Your task to perform on an android device: When is my next appointment? Image 0: 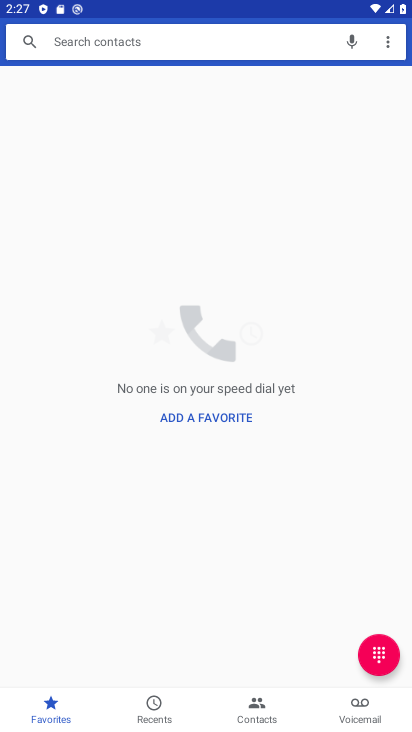
Step 0: press home button
Your task to perform on an android device: When is my next appointment? Image 1: 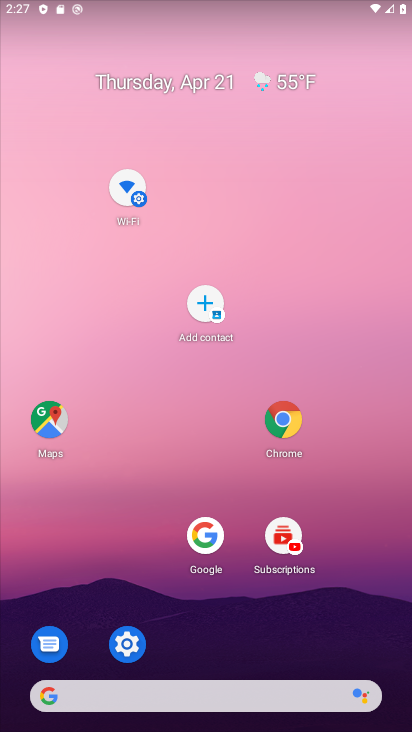
Step 1: drag from (359, 631) to (193, 192)
Your task to perform on an android device: When is my next appointment? Image 2: 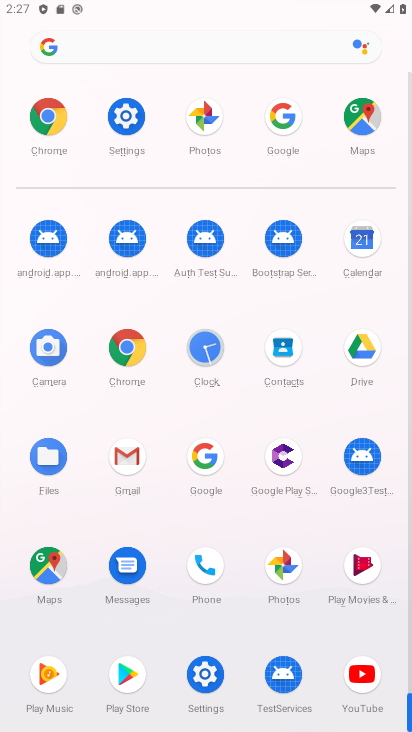
Step 2: click (119, 117)
Your task to perform on an android device: When is my next appointment? Image 3: 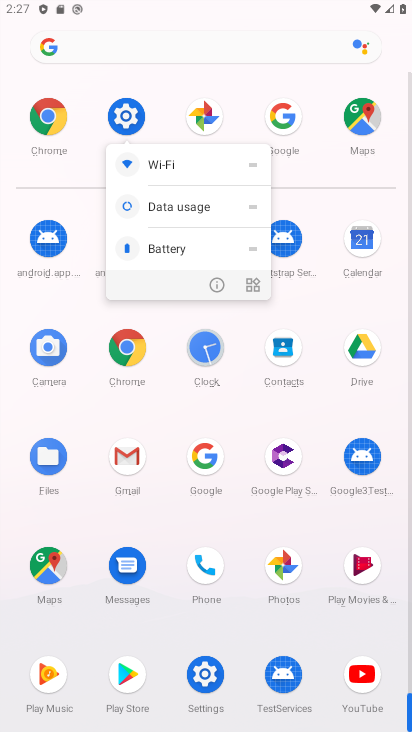
Step 3: click (117, 115)
Your task to perform on an android device: When is my next appointment? Image 4: 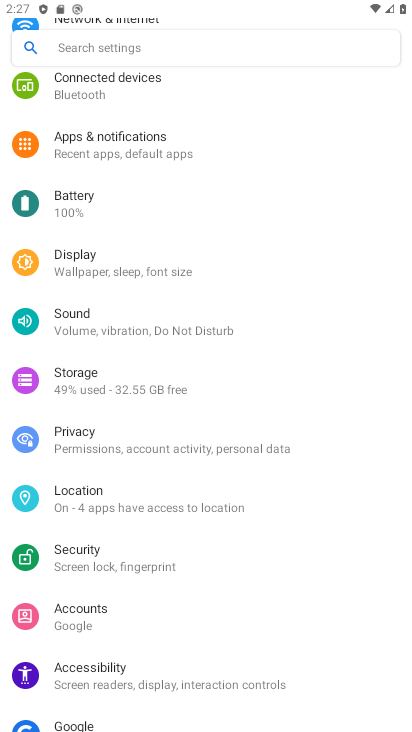
Step 4: press home button
Your task to perform on an android device: When is my next appointment? Image 5: 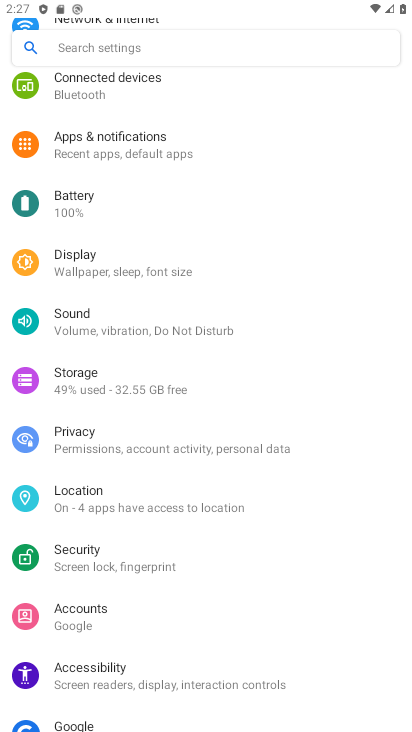
Step 5: press home button
Your task to perform on an android device: When is my next appointment? Image 6: 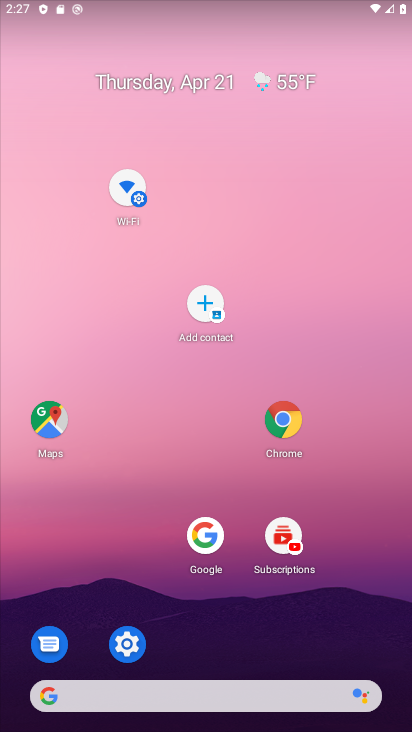
Step 6: drag from (244, 497) to (156, 170)
Your task to perform on an android device: When is my next appointment? Image 7: 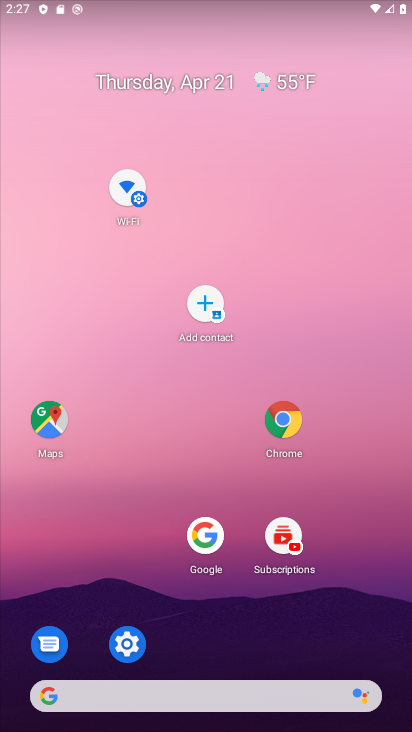
Step 7: drag from (239, 488) to (162, 241)
Your task to perform on an android device: When is my next appointment? Image 8: 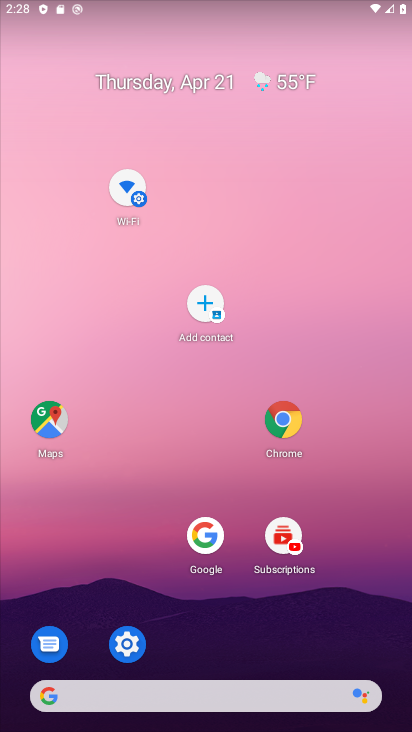
Step 8: drag from (289, 423) to (242, 295)
Your task to perform on an android device: When is my next appointment? Image 9: 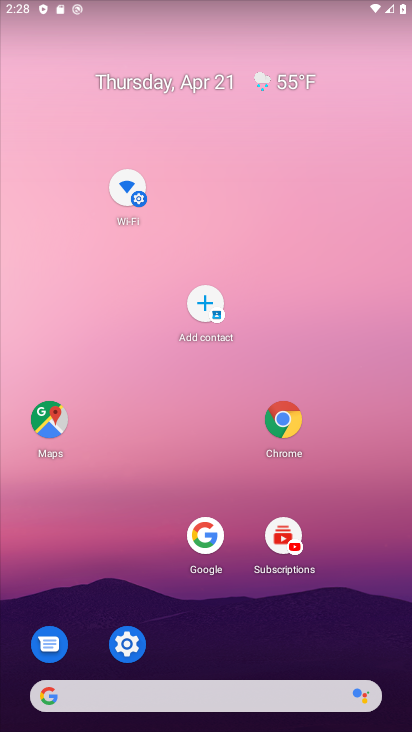
Step 9: drag from (218, 276) to (201, 175)
Your task to perform on an android device: When is my next appointment? Image 10: 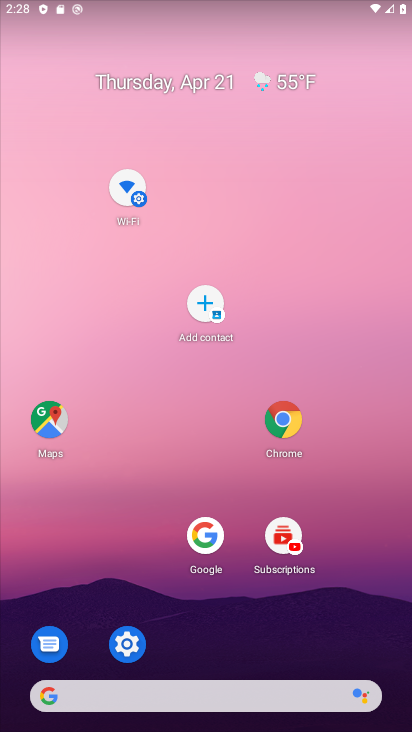
Step 10: drag from (286, 344) to (241, 226)
Your task to perform on an android device: When is my next appointment? Image 11: 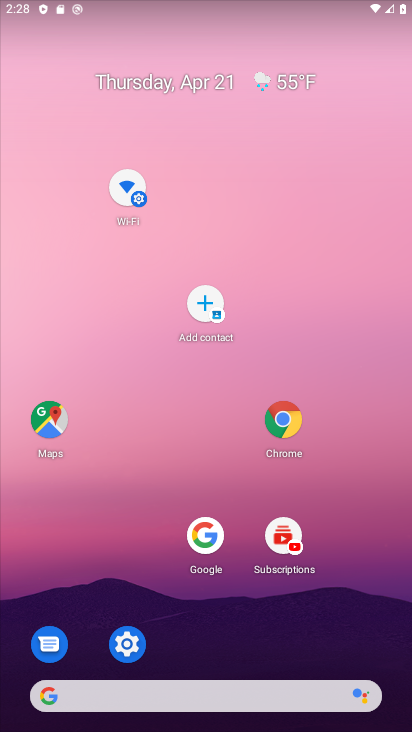
Step 11: drag from (269, 235) to (218, 46)
Your task to perform on an android device: When is my next appointment? Image 12: 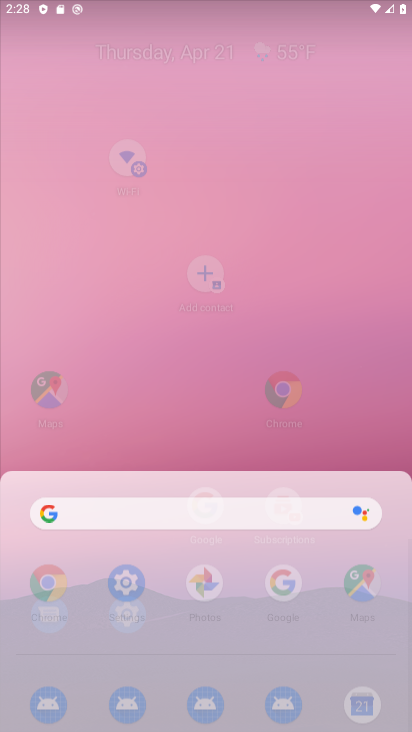
Step 12: drag from (250, 496) to (101, 22)
Your task to perform on an android device: When is my next appointment? Image 13: 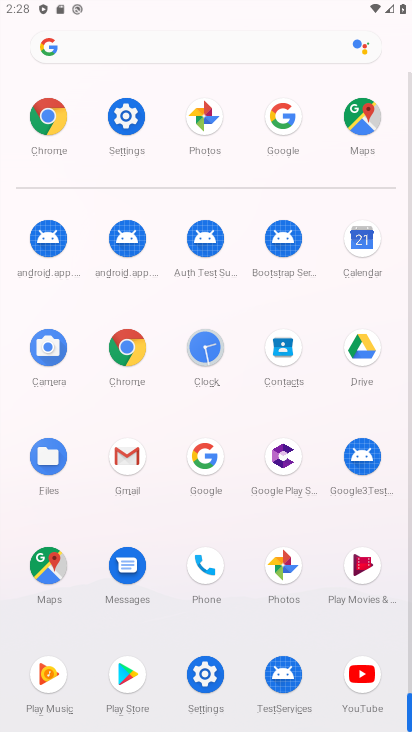
Step 13: click (357, 252)
Your task to perform on an android device: When is my next appointment? Image 14: 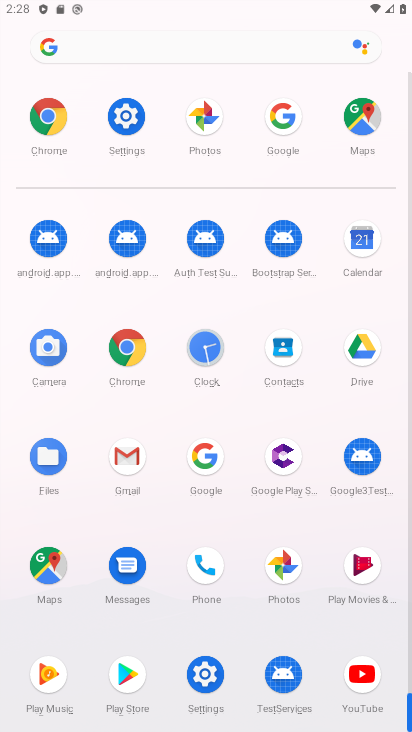
Step 14: click (357, 252)
Your task to perform on an android device: When is my next appointment? Image 15: 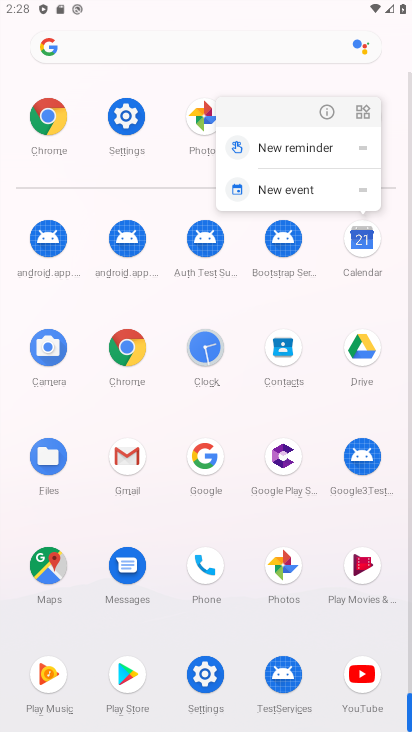
Step 15: click (291, 175)
Your task to perform on an android device: When is my next appointment? Image 16: 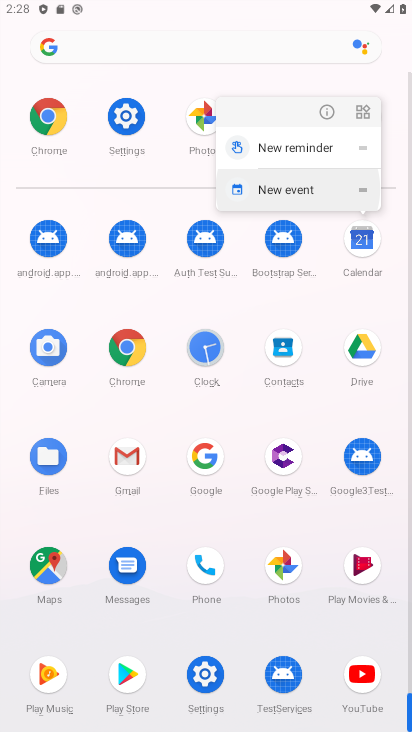
Step 16: click (294, 182)
Your task to perform on an android device: When is my next appointment? Image 17: 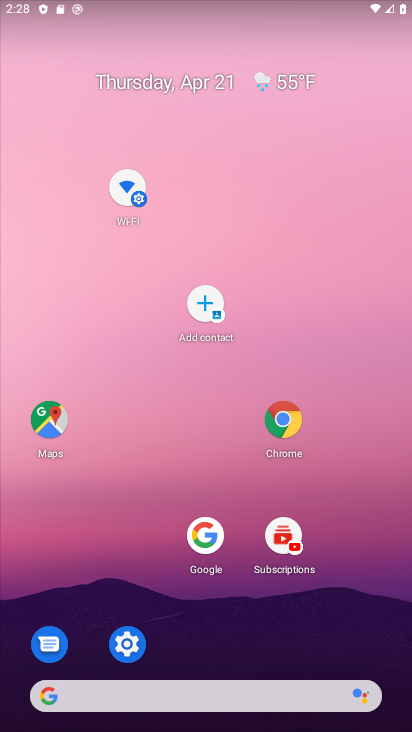
Step 17: drag from (320, 625) to (302, 115)
Your task to perform on an android device: When is my next appointment? Image 18: 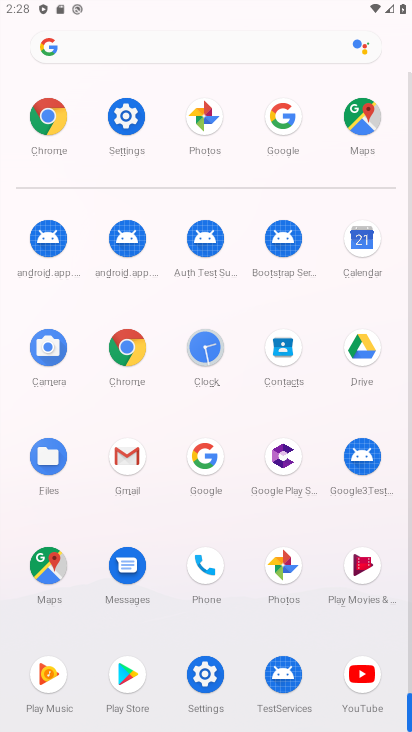
Step 18: click (359, 249)
Your task to perform on an android device: When is my next appointment? Image 19: 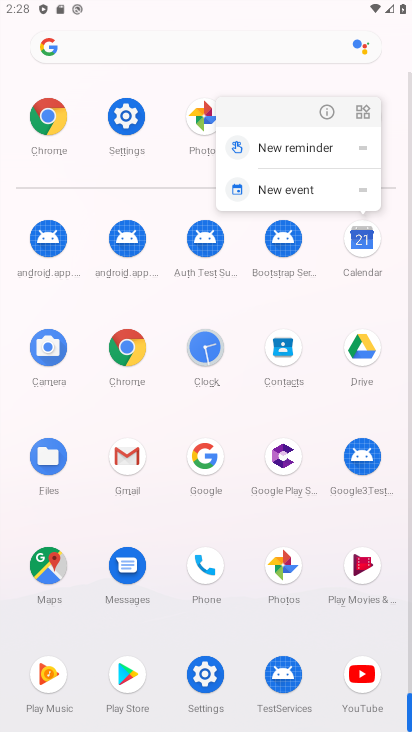
Step 19: click (358, 247)
Your task to perform on an android device: When is my next appointment? Image 20: 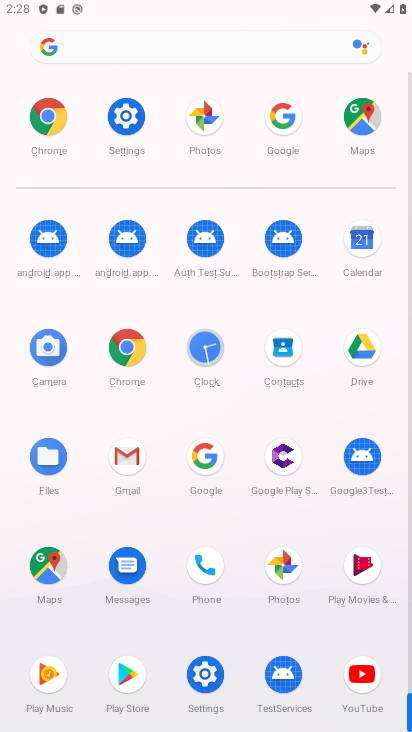
Step 20: click (359, 246)
Your task to perform on an android device: When is my next appointment? Image 21: 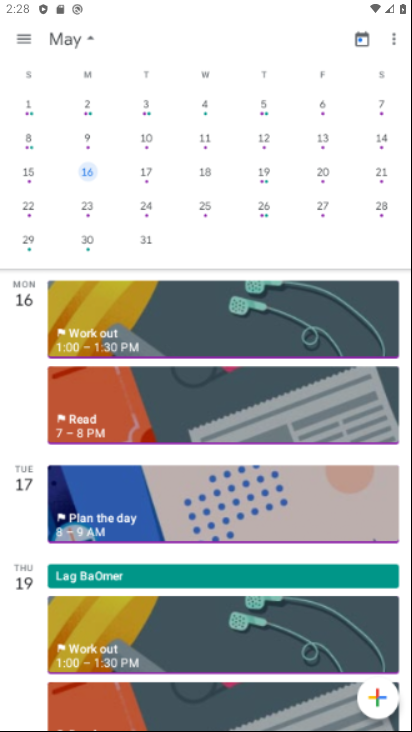
Step 21: click (362, 246)
Your task to perform on an android device: When is my next appointment? Image 22: 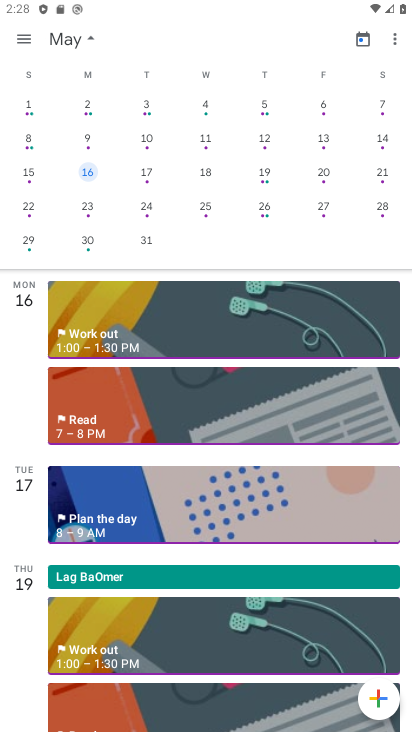
Step 22: drag from (148, 545) to (158, 227)
Your task to perform on an android device: When is my next appointment? Image 23: 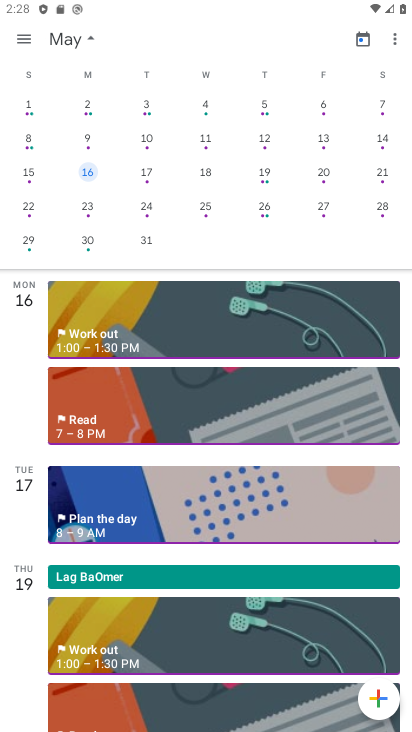
Step 23: drag from (201, 653) to (149, 411)
Your task to perform on an android device: When is my next appointment? Image 24: 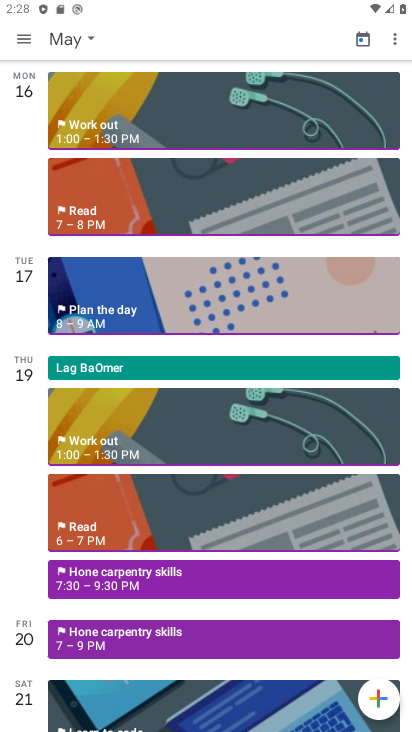
Step 24: drag from (164, 588) to (179, 376)
Your task to perform on an android device: When is my next appointment? Image 25: 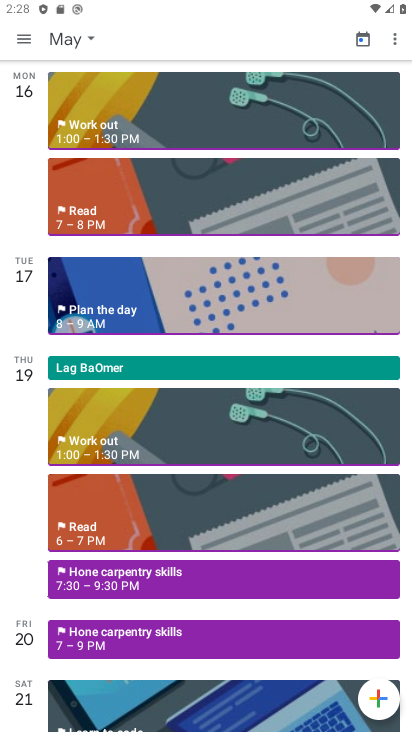
Step 25: drag from (156, 543) to (122, 278)
Your task to perform on an android device: When is my next appointment? Image 26: 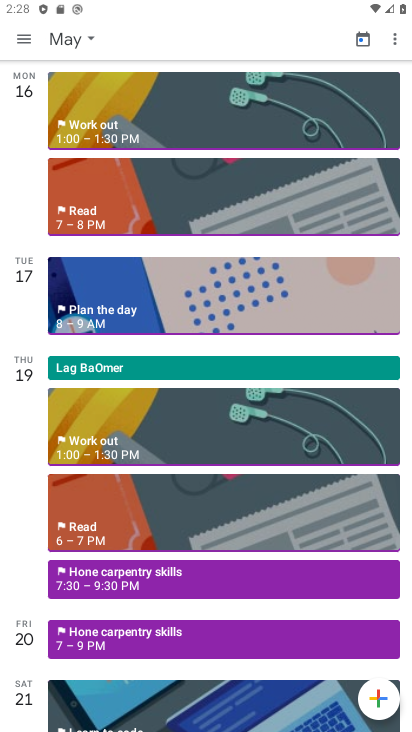
Step 26: drag from (110, 408) to (110, 96)
Your task to perform on an android device: When is my next appointment? Image 27: 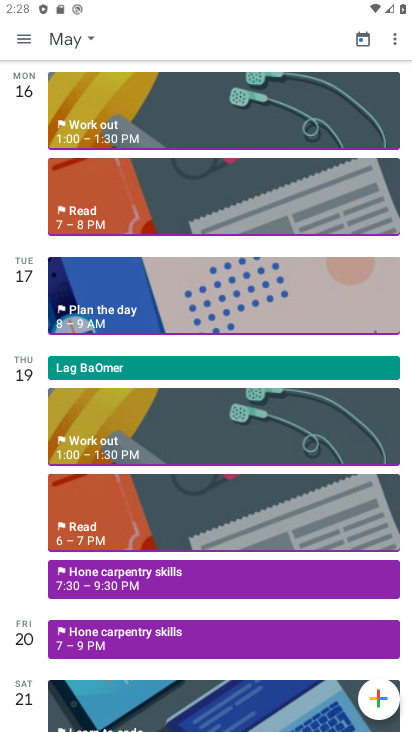
Step 27: drag from (116, 440) to (116, 95)
Your task to perform on an android device: When is my next appointment? Image 28: 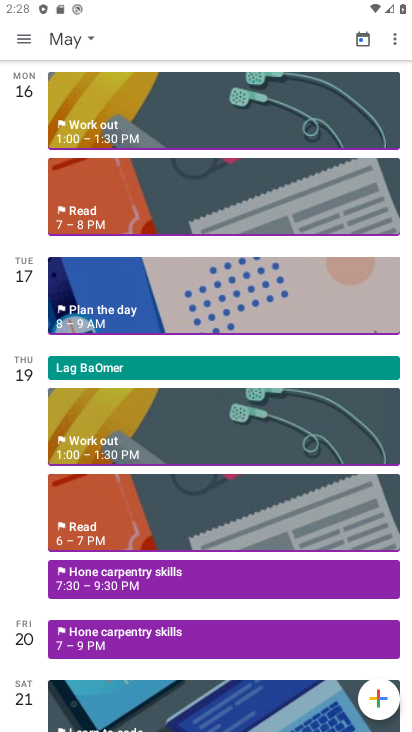
Step 28: drag from (199, 134) to (152, 185)
Your task to perform on an android device: When is my next appointment? Image 29: 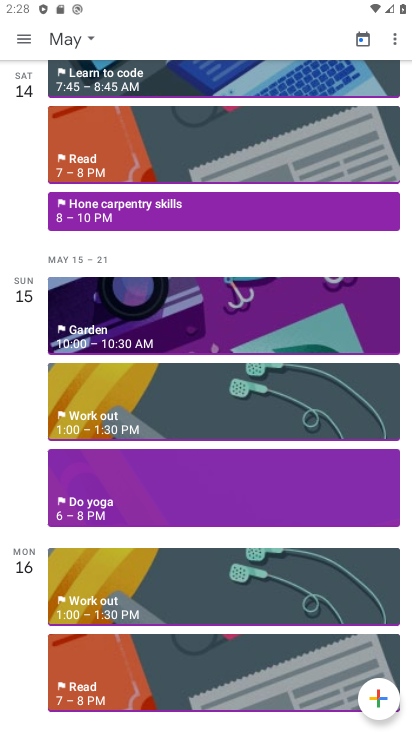
Step 29: drag from (132, 361) to (194, 3)
Your task to perform on an android device: When is my next appointment? Image 30: 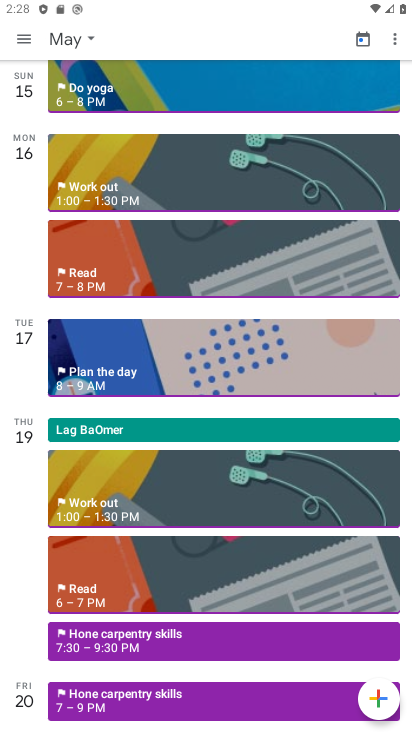
Step 30: click (65, 63)
Your task to perform on an android device: When is my next appointment? Image 31: 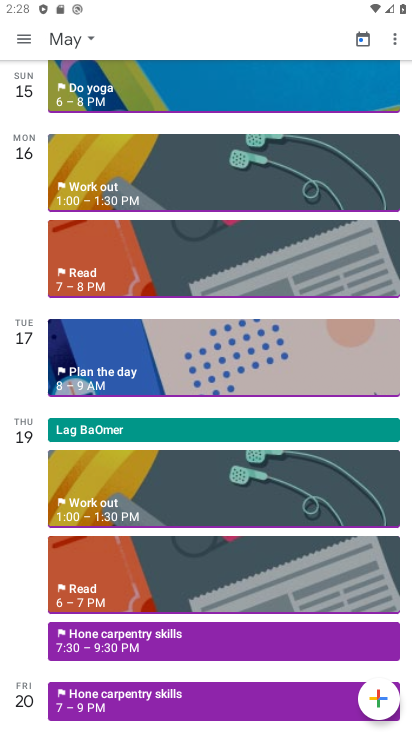
Step 31: drag from (136, 349) to (159, 154)
Your task to perform on an android device: When is my next appointment? Image 32: 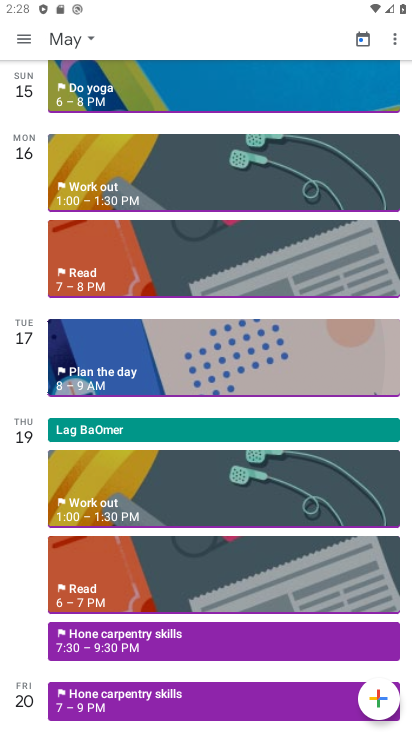
Step 32: drag from (198, 379) to (195, 195)
Your task to perform on an android device: When is my next appointment? Image 33: 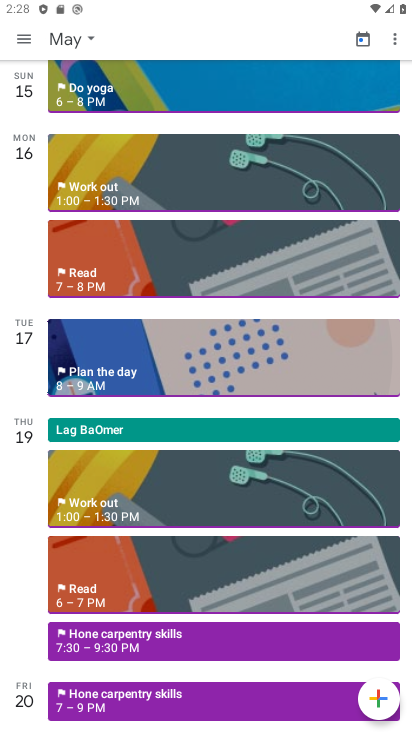
Step 33: drag from (192, 447) to (314, 45)
Your task to perform on an android device: When is my next appointment? Image 34: 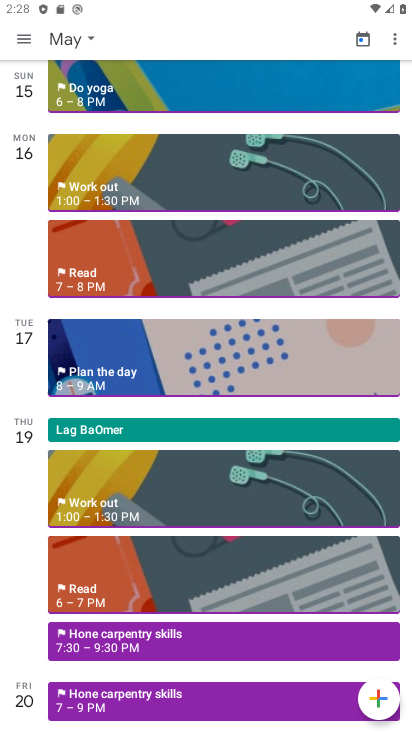
Step 34: drag from (282, 573) to (253, 81)
Your task to perform on an android device: When is my next appointment? Image 35: 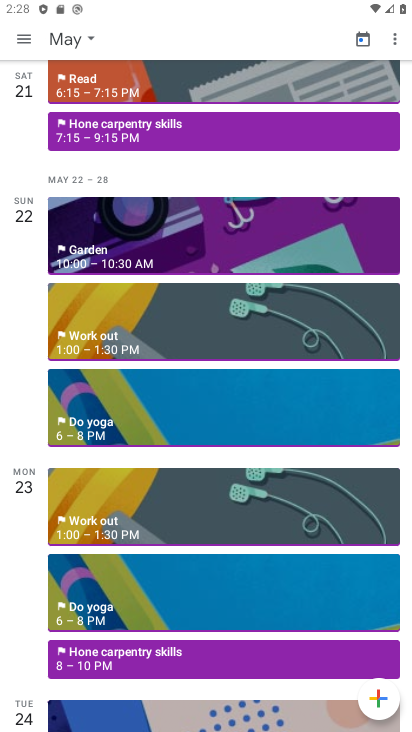
Step 35: drag from (60, 431) to (60, 119)
Your task to perform on an android device: When is my next appointment? Image 36: 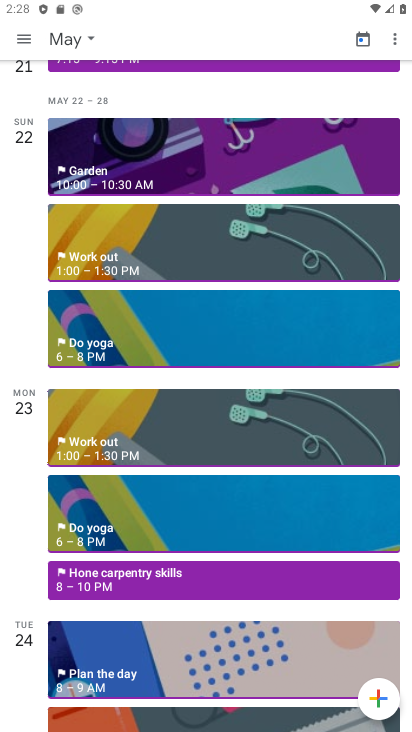
Step 36: drag from (152, 368) to (138, 193)
Your task to perform on an android device: When is my next appointment? Image 37: 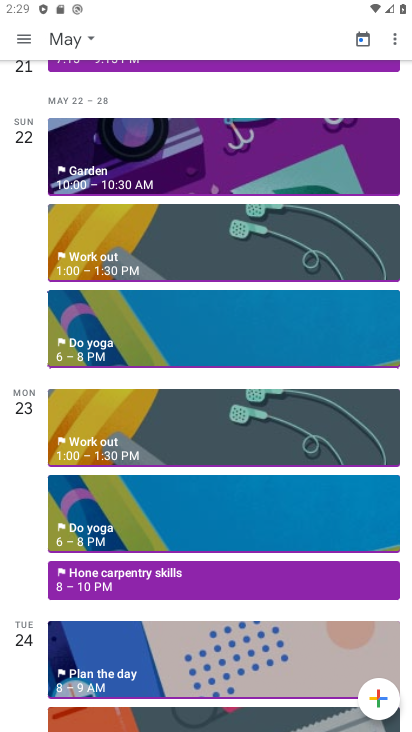
Step 37: click (40, 121)
Your task to perform on an android device: When is my next appointment? Image 38: 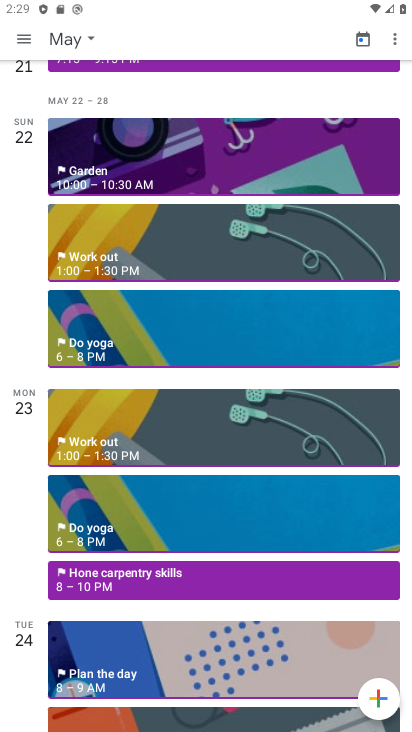
Step 38: drag from (97, 462) to (137, 168)
Your task to perform on an android device: When is my next appointment? Image 39: 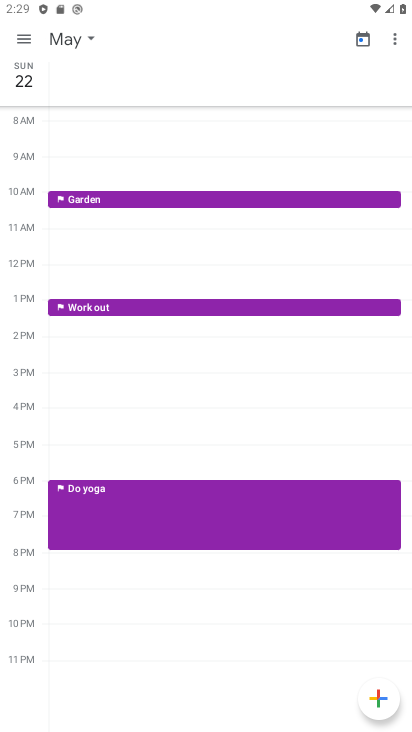
Step 39: click (55, 34)
Your task to perform on an android device: When is my next appointment? Image 40: 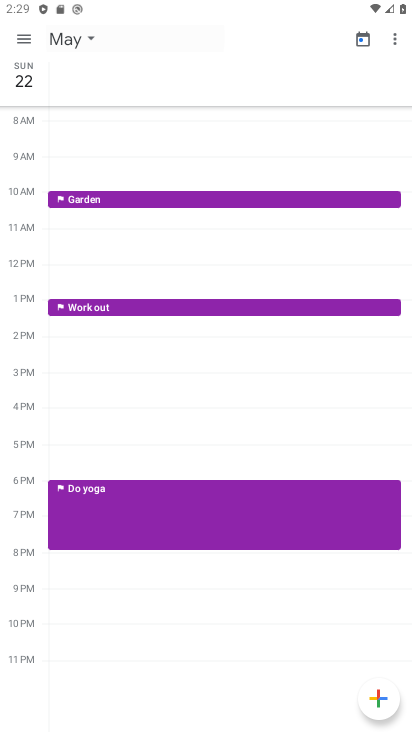
Step 40: task complete